Your task to perform on an android device: Go to ESPN.com Image 0: 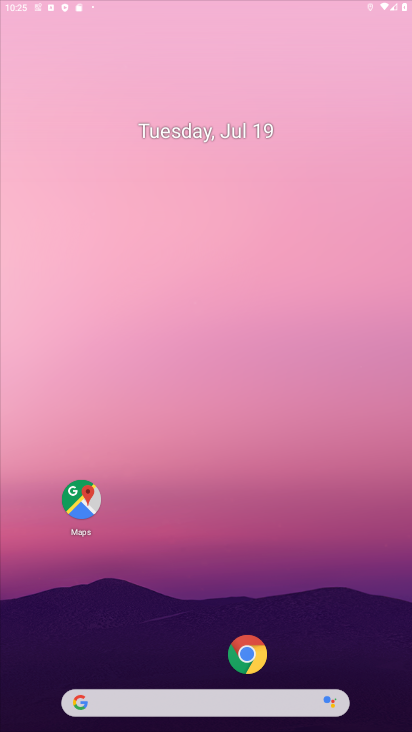
Step 0: click (240, 658)
Your task to perform on an android device: Go to ESPN.com Image 1: 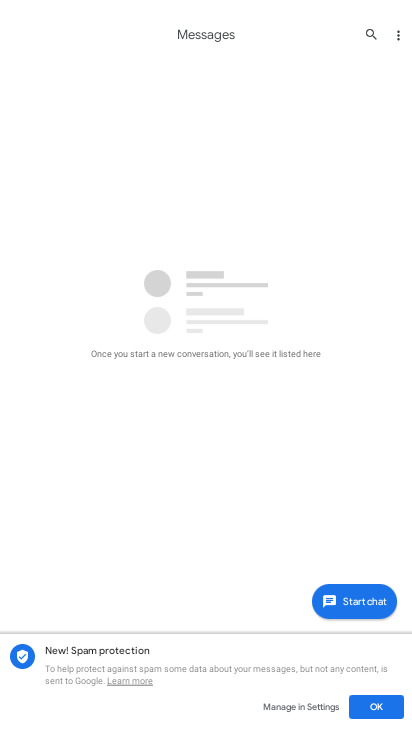
Step 1: press home button
Your task to perform on an android device: Go to ESPN.com Image 2: 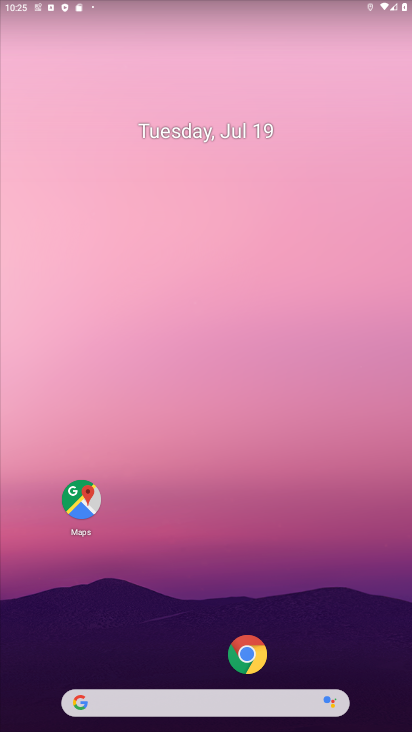
Step 2: click (255, 654)
Your task to perform on an android device: Go to ESPN.com Image 3: 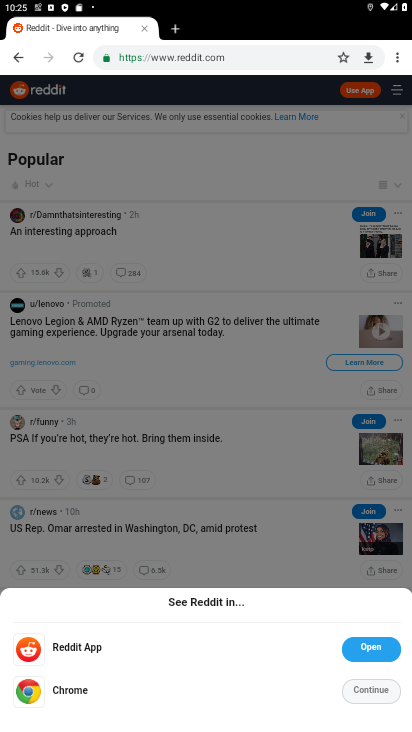
Step 3: click (175, 28)
Your task to perform on an android device: Go to ESPN.com Image 4: 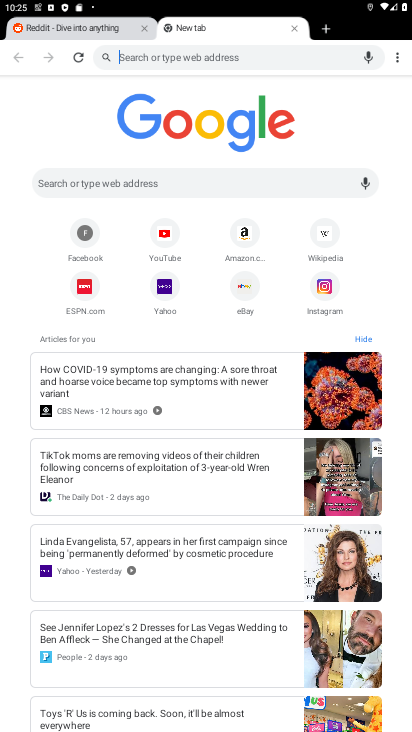
Step 4: click (82, 280)
Your task to perform on an android device: Go to ESPN.com Image 5: 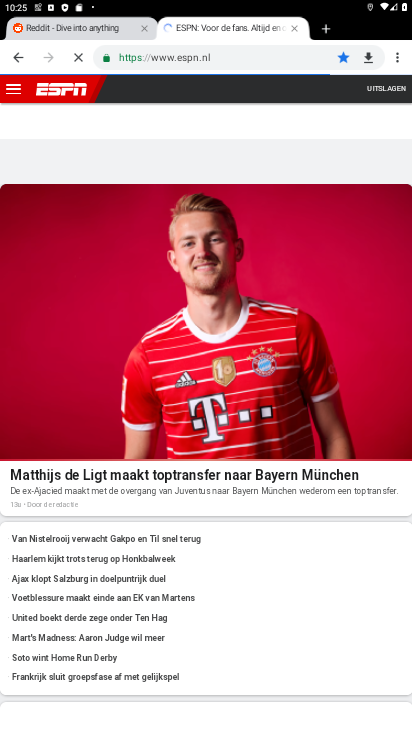
Step 5: task complete